Your task to perform on an android device: Show me popular videos on Youtube Image 0: 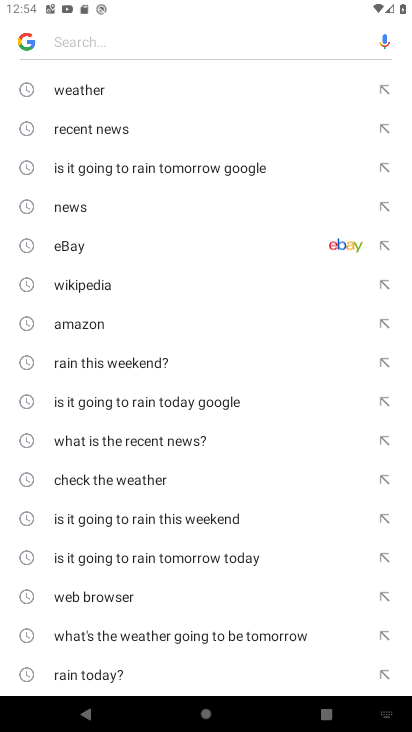
Step 0: press home button
Your task to perform on an android device: Show me popular videos on Youtube Image 1: 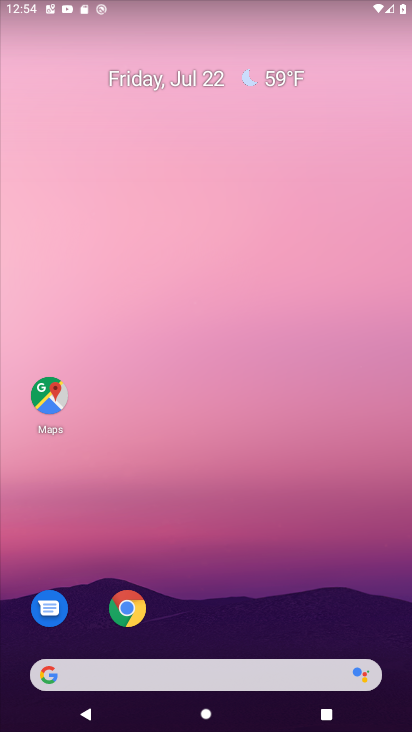
Step 1: drag from (247, 581) to (161, 17)
Your task to perform on an android device: Show me popular videos on Youtube Image 2: 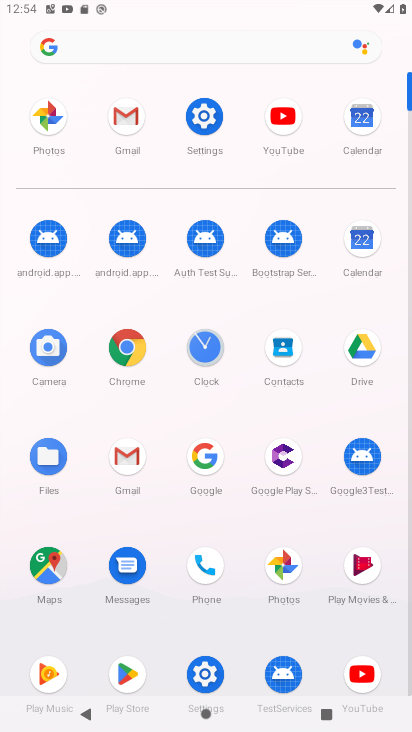
Step 2: click (290, 121)
Your task to perform on an android device: Show me popular videos on Youtube Image 3: 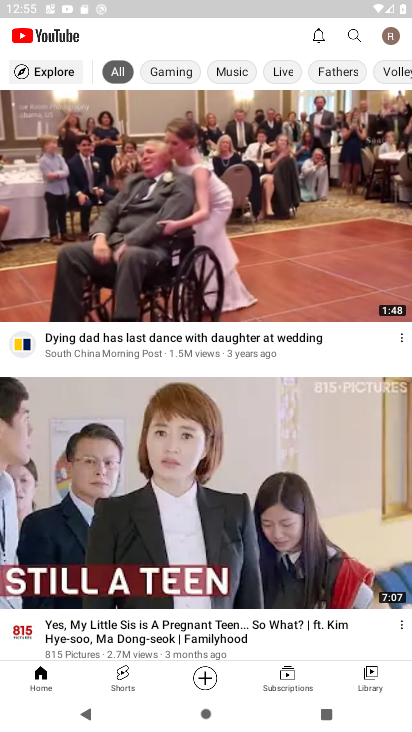
Step 3: click (38, 61)
Your task to perform on an android device: Show me popular videos on Youtube Image 4: 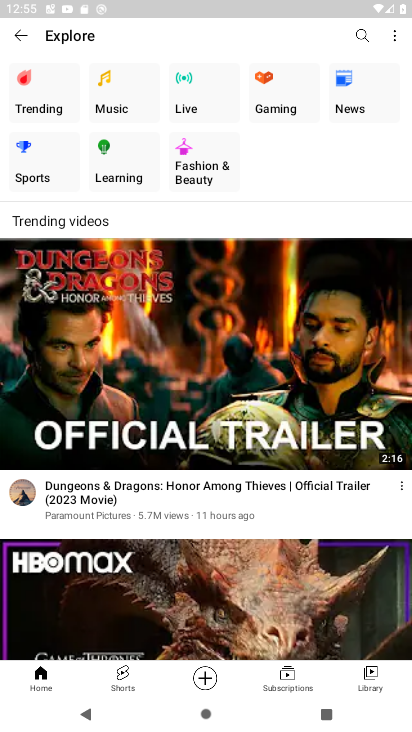
Step 4: click (47, 83)
Your task to perform on an android device: Show me popular videos on Youtube Image 5: 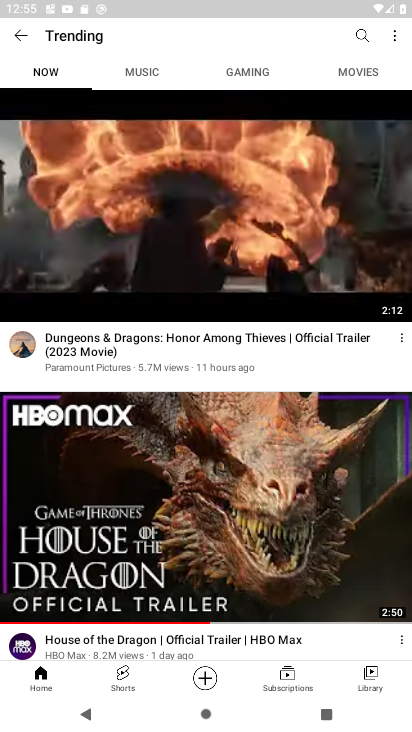
Step 5: task complete